Your task to perform on an android device: turn on javascript in the chrome app Image 0: 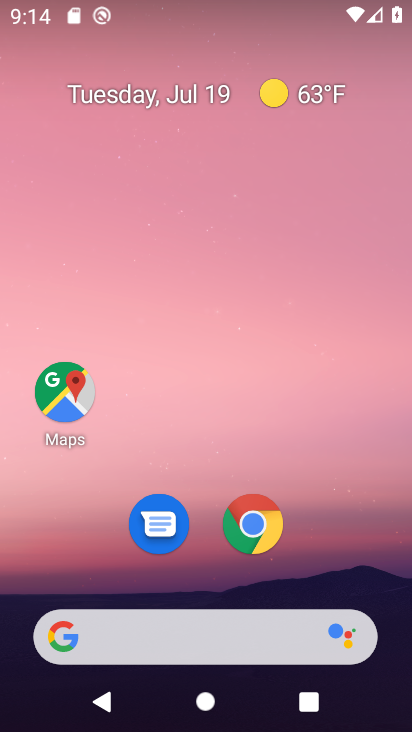
Step 0: click (253, 531)
Your task to perform on an android device: turn on javascript in the chrome app Image 1: 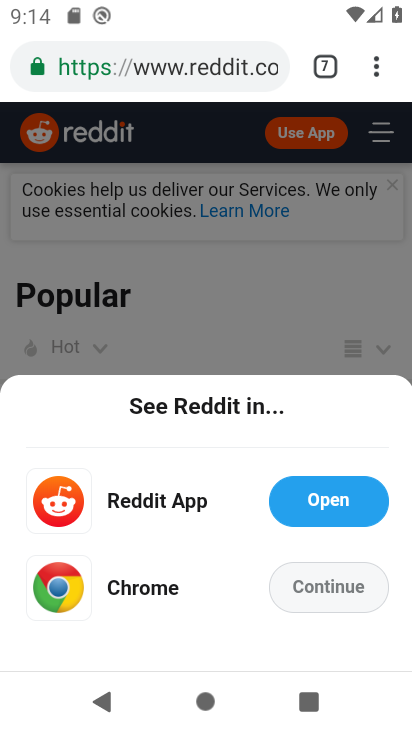
Step 1: drag from (375, 73) to (250, 529)
Your task to perform on an android device: turn on javascript in the chrome app Image 2: 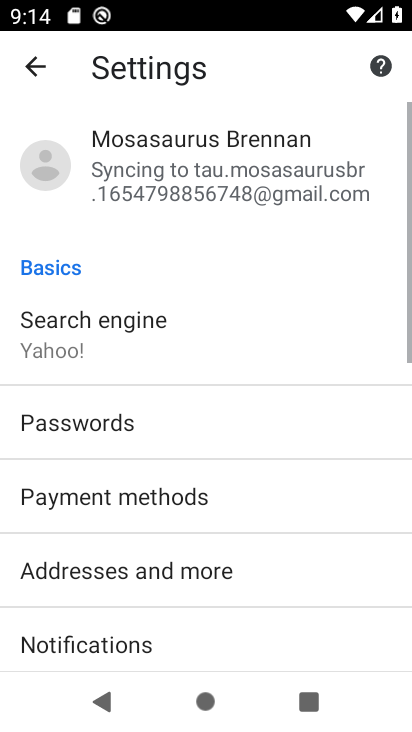
Step 2: drag from (204, 586) to (328, 147)
Your task to perform on an android device: turn on javascript in the chrome app Image 3: 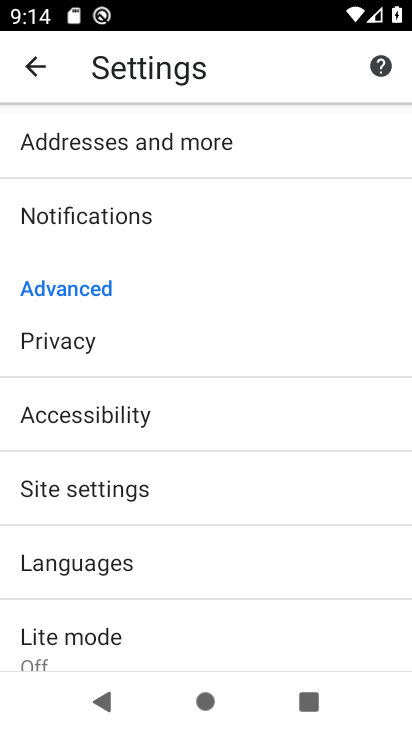
Step 3: click (113, 491)
Your task to perform on an android device: turn on javascript in the chrome app Image 4: 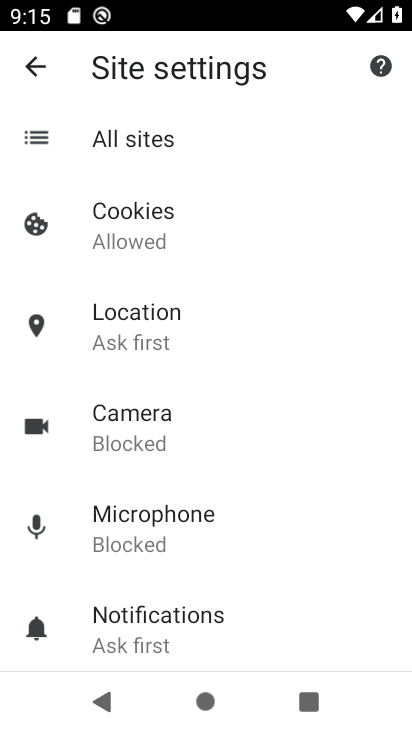
Step 4: drag from (183, 575) to (268, 215)
Your task to perform on an android device: turn on javascript in the chrome app Image 5: 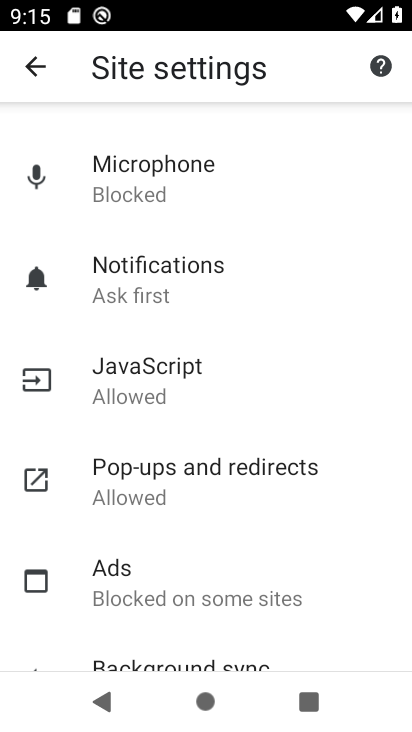
Step 5: click (159, 376)
Your task to perform on an android device: turn on javascript in the chrome app Image 6: 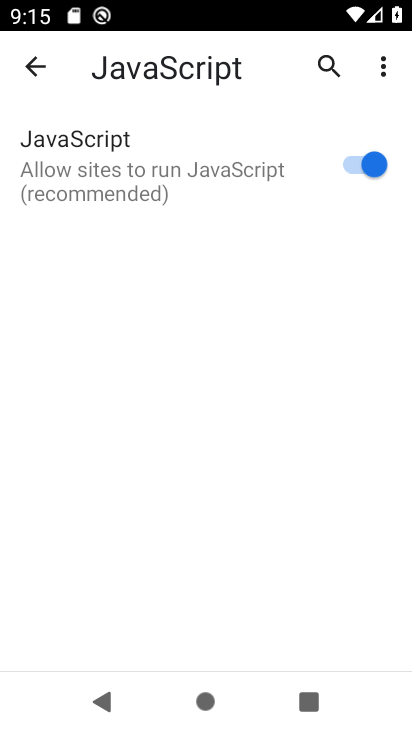
Step 6: task complete